Your task to perform on an android device: turn off smart reply in the gmail app Image 0: 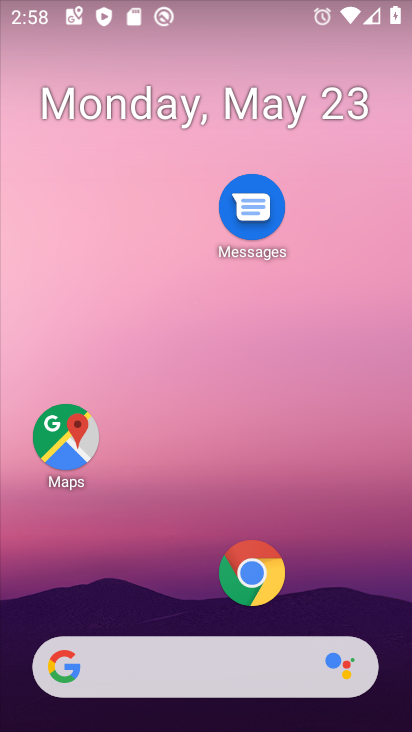
Step 0: drag from (316, 628) to (306, 78)
Your task to perform on an android device: turn off smart reply in the gmail app Image 1: 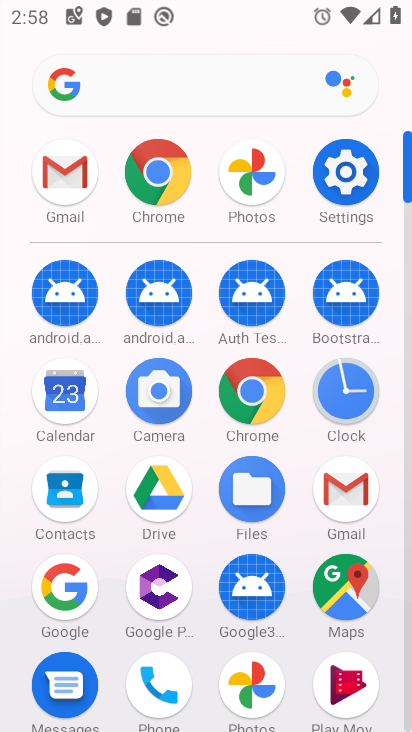
Step 1: click (350, 482)
Your task to perform on an android device: turn off smart reply in the gmail app Image 2: 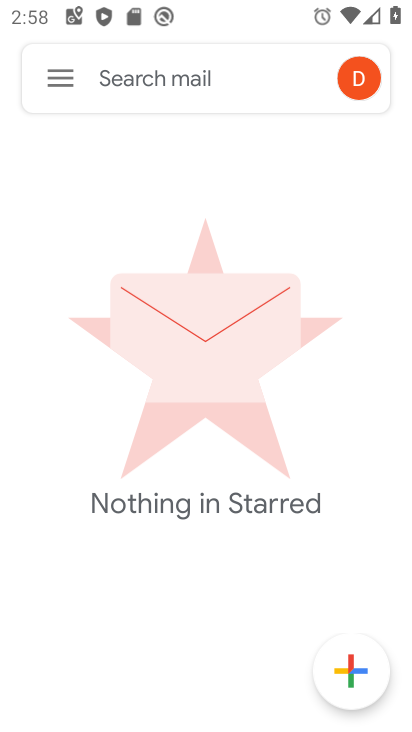
Step 2: click (48, 70)
Your task to perform on an android device: turn off smart reply in the gmail app Image 3: 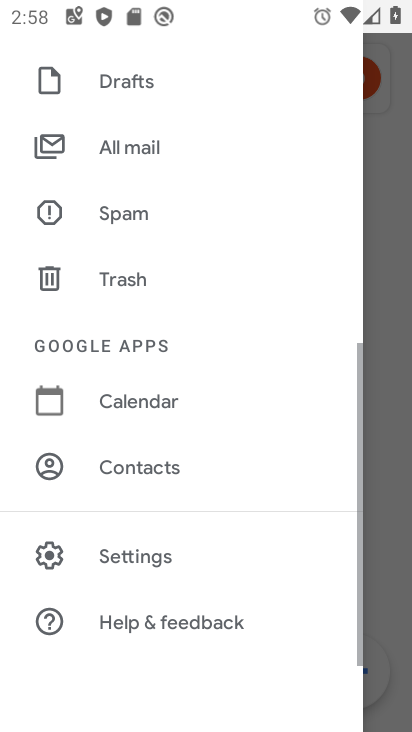
Step 3: click (165, 561)
Your task to perform on an android device: turn off smart reply in the gmail app Image 4: 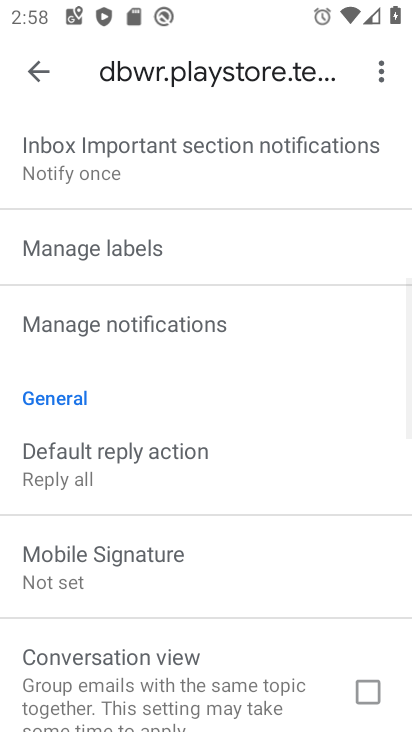
Step 4: task complete